Your task to perform on an android device: Open Google Maps and go to "Timeline" Image 0: 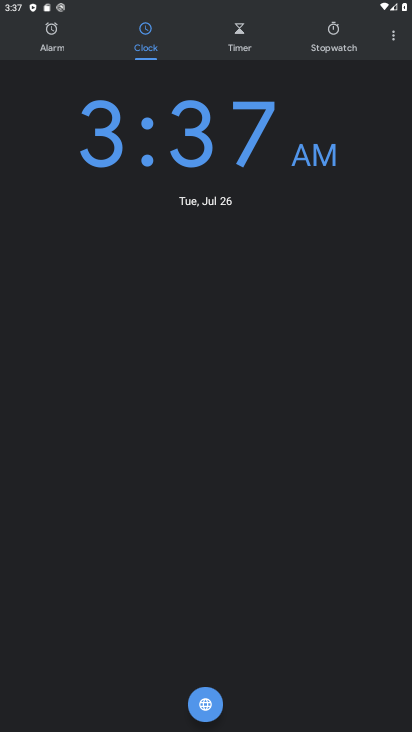
Step 0: press home button
Your task to perform on an android device: Open Google Maps and go to "Timeline" Image 1: 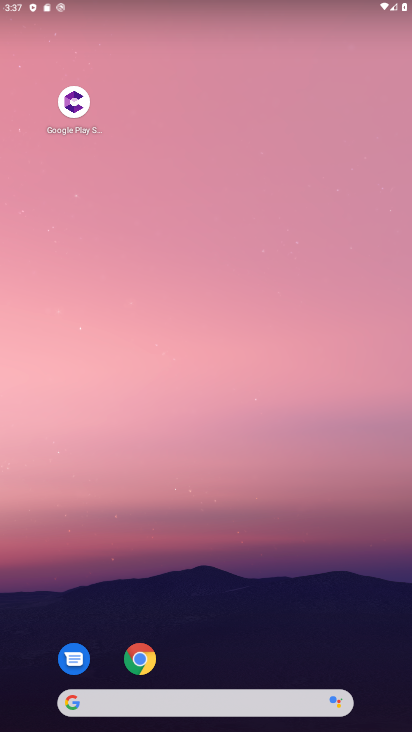
Step 1: drag from (220, 669) to (180, 1)
Your task to perform on an android device: Open Google Maps and go to "Timeline" Image 2: 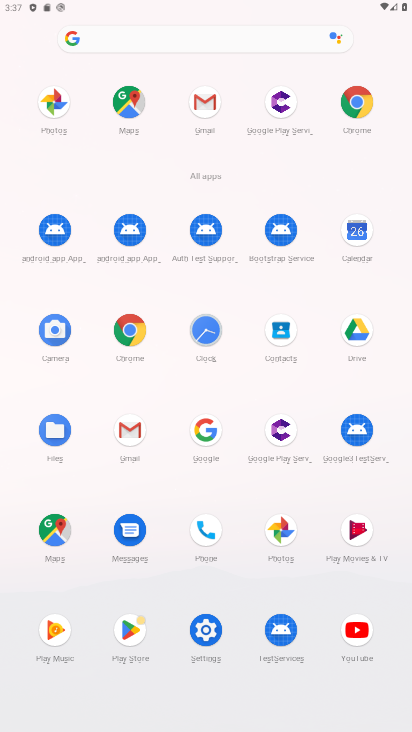
Step 2: click (46, 530)
Your task to perform on an android device: Open Google Maps and go to "Timeline" Image 3: 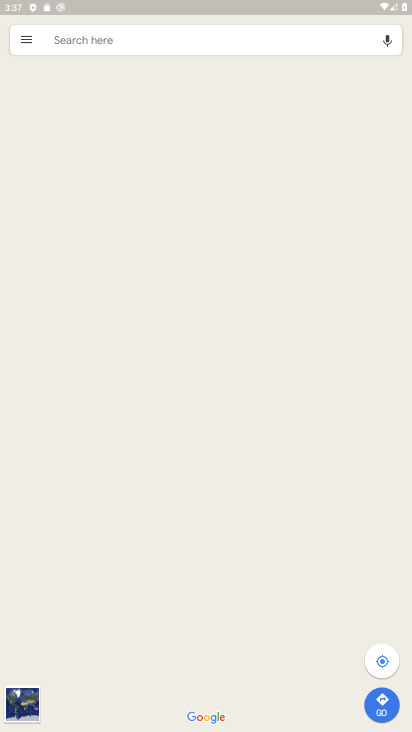
Step 3: click (28, 37)
Your task to perform on an android device: Open Google Maps and go to "Timeline" Image 4: 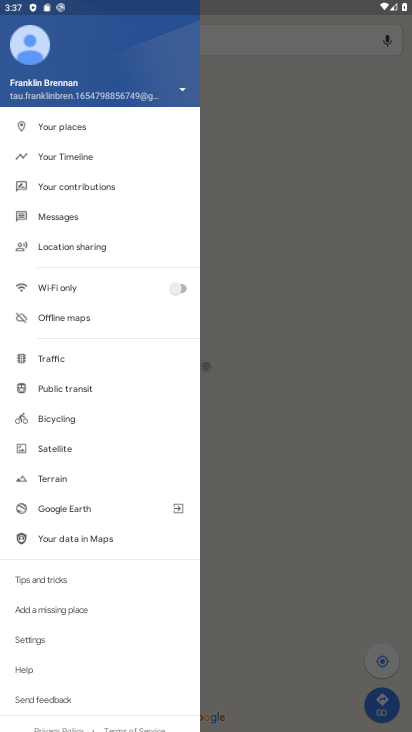
Step 4: click (89, 161)
Your task to perform on an android device: Open Google Maps and go to "Timeline" Image 5: 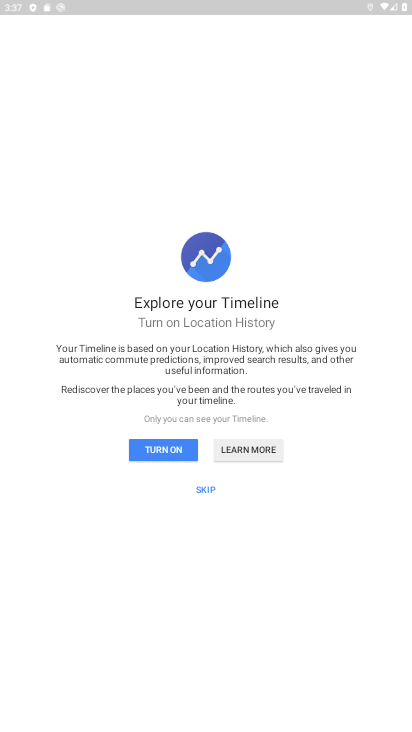
Step 5: task complete